Your task to perform on an android device: Search for vegetarian restaurants on Maps Image 0: 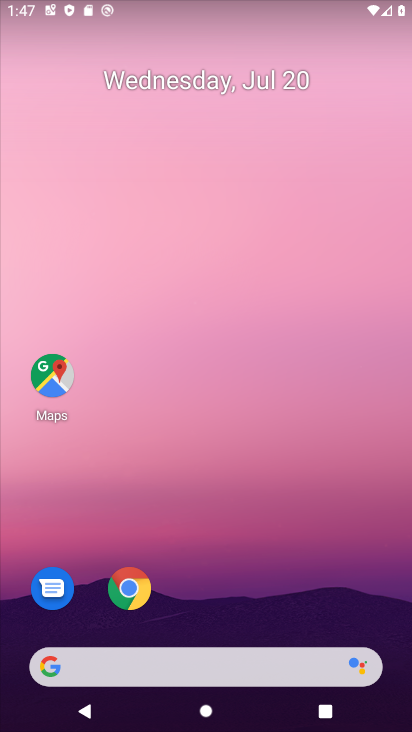
Step 0: drag from (375, 634) to (195, 5)
Your task to perform on an android device: Search for vegetarian restaurants on Maps Image 1: 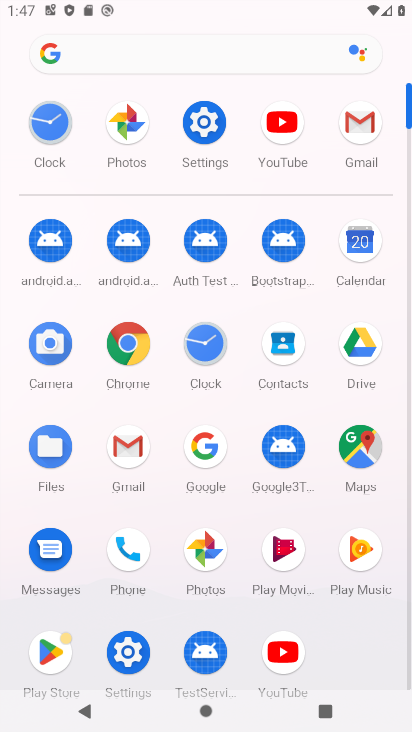
Step 1: click (374, 451)
Your task to perform on an android device: Search for vegetarian restaurants on Maps Image 2: 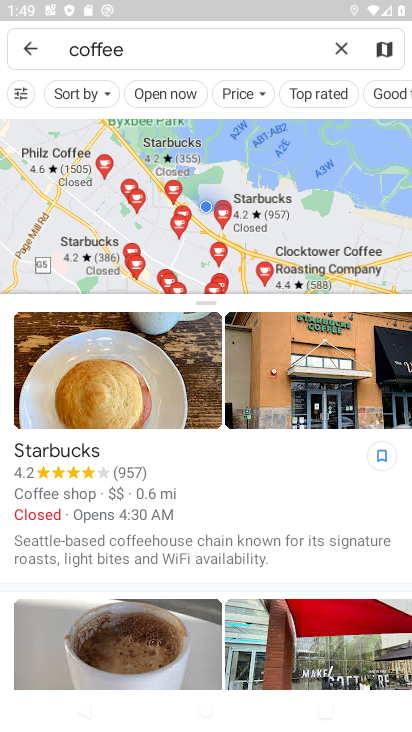
Step 2: click (331, 43)
Your task to perform on an android device: Search for vegetarian restaurants on Maps Image 3: 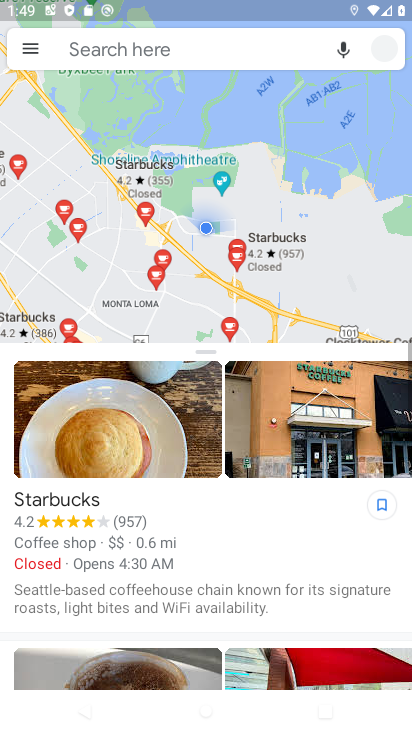
Step 3: click (194, 45)
Your task to perform on an android device: Search for vegetarian restaurants on Maps Image 4: 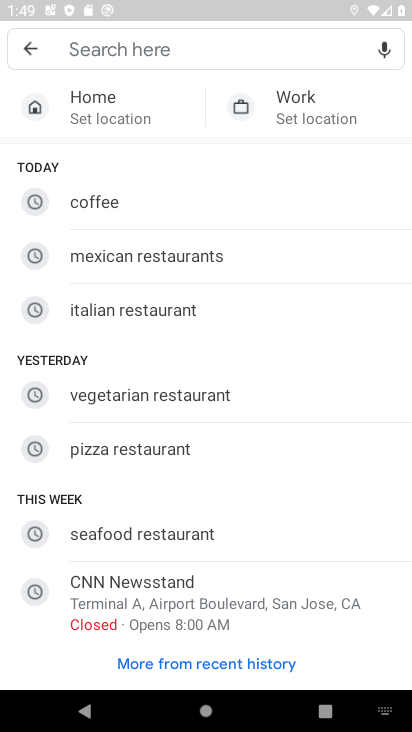
Step 4: click (116, 395)
Your task to perform on an android device: Search for vegetarian restaurants on Maps Image 5: 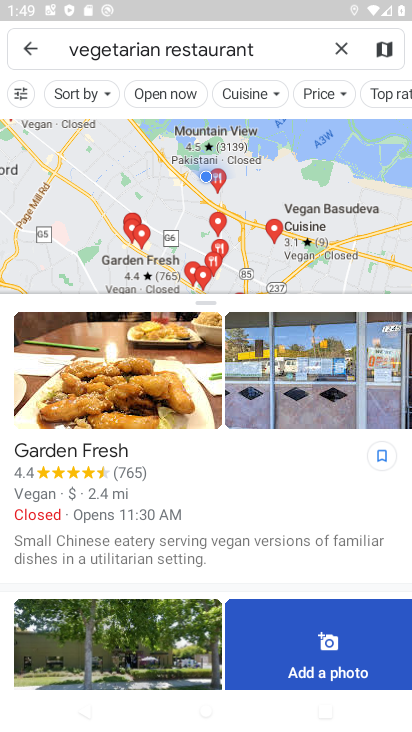
Step 5: task complete